Your task to perform on an android device: Open Google Chrome and click the shortcut for Amazon.com Image 0: 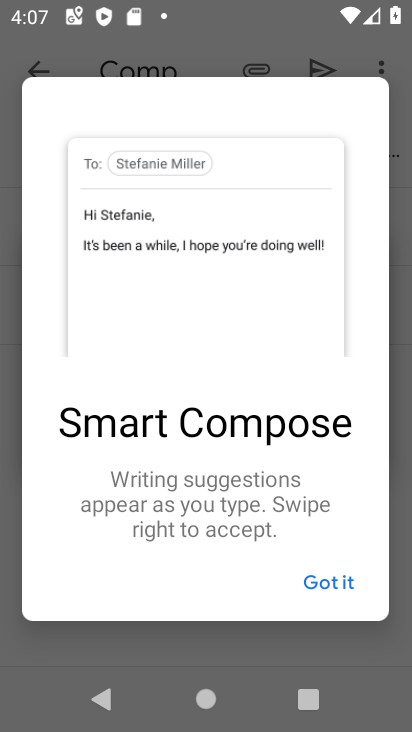
Step 0: press home button
Your task to perform on an android device: Open Google Chrome and click the shortcut for Amazon.com Image 1: 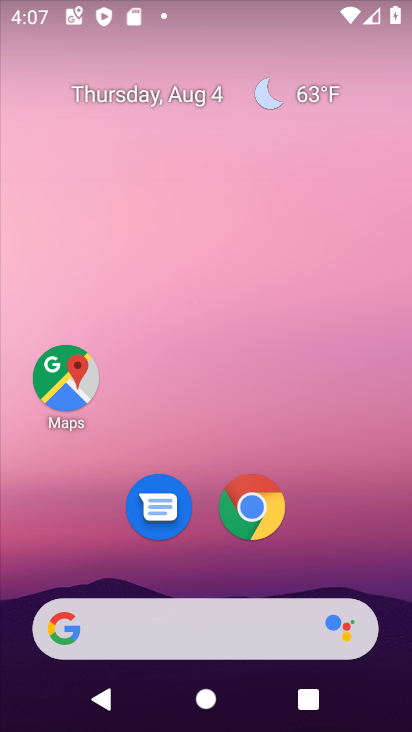
Step 1: click (248, 492)
Your task to perform on an android device: Open Google Chrome and click the shortcut for Amazon.com Image 2: 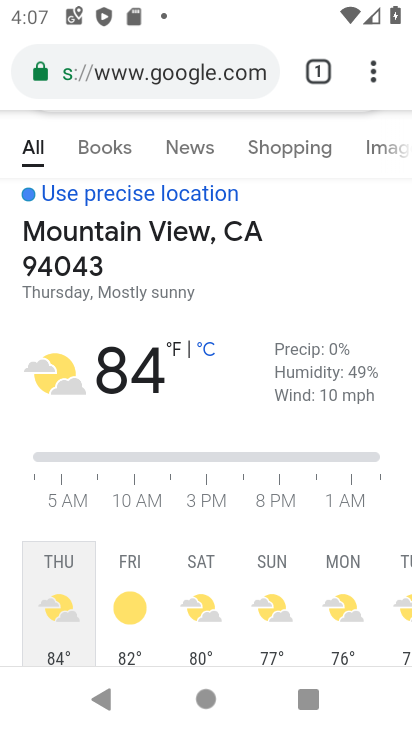
Step 2: click (197, 83)
Your task to perform on an android device: Open Google Chrome and click the shortcut for Amazon.com Image 3: 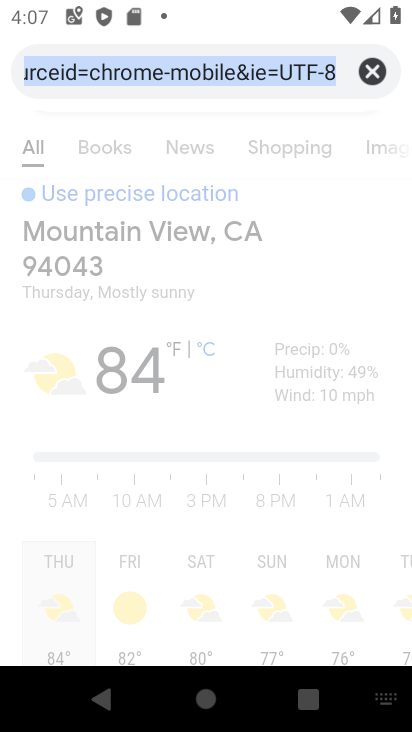
Step 3: click (372, 74)
Your task to perform on an android device: Open Google Chrome and click the shortcut for Amazon.com Image 4: 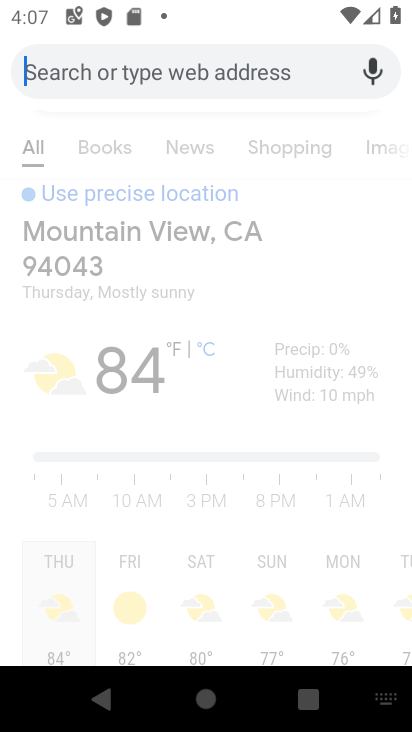
Step 4: task complete